Your task to perform on an android device: open a new tab in the chrome app Image 0: 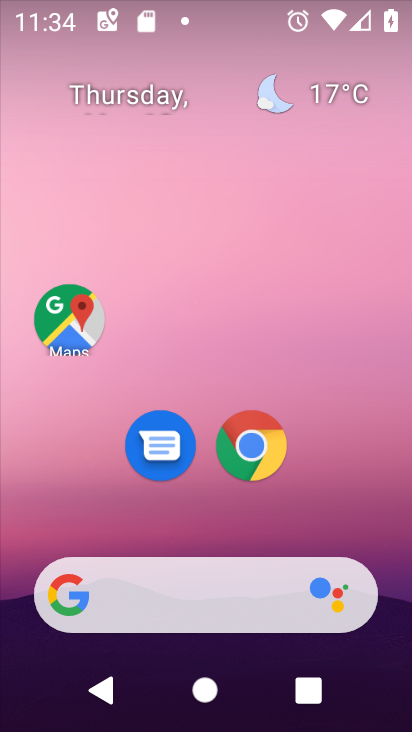
Step 0: click (262, 365)
Your task to perform on an android device: open a new tab in the chrome app Image 1: 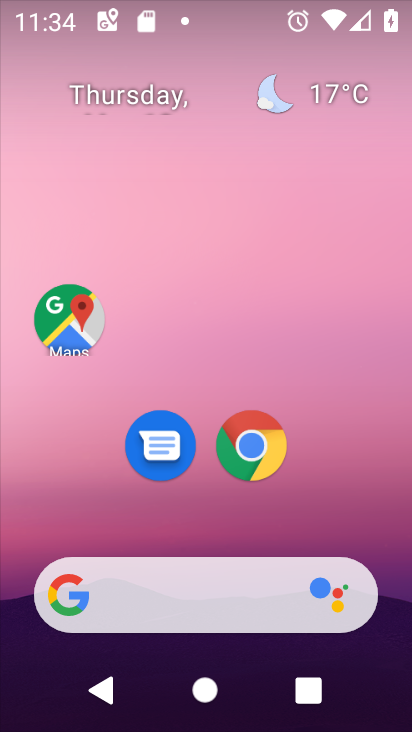
Step 1: drag from (184, 532) to (209, 64)
Your task to perform on an android device: open a new tab in the chrome app Image 2: 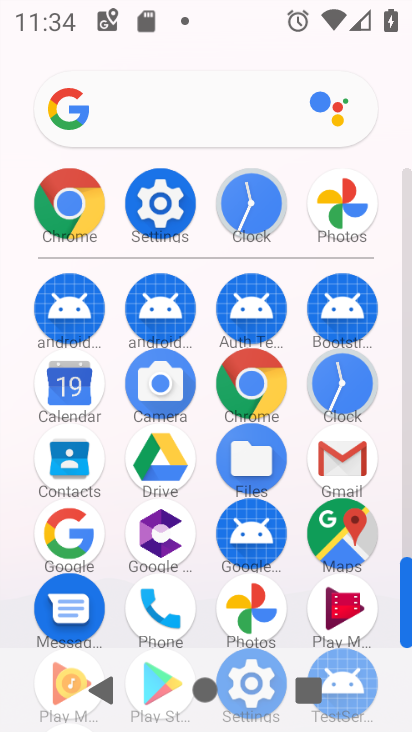
Step 2: click (263, 393)
Your task to perform on an android device: open a new tab in the chrome app Image 3: 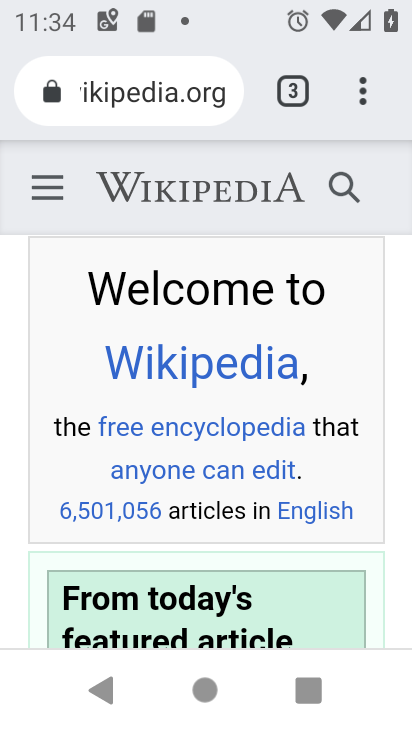
Step 3: click (308, 95)
Your task to perform on an android device: open a new tab in the chrome app Image 4: 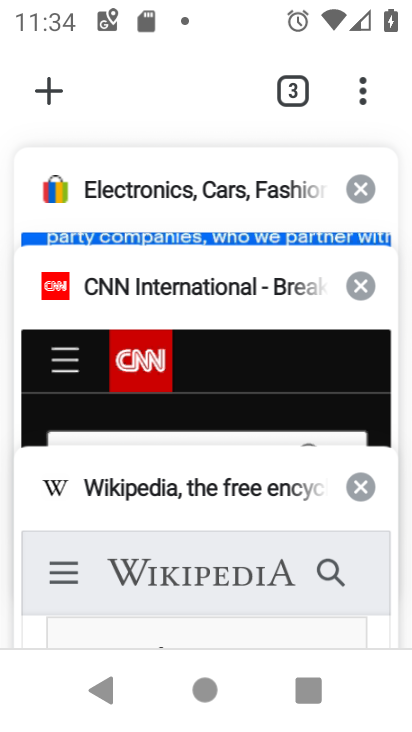
Step 4: click (61, 94)
Your task to perform on an android device: open a new tab in the chrome app Image 5: 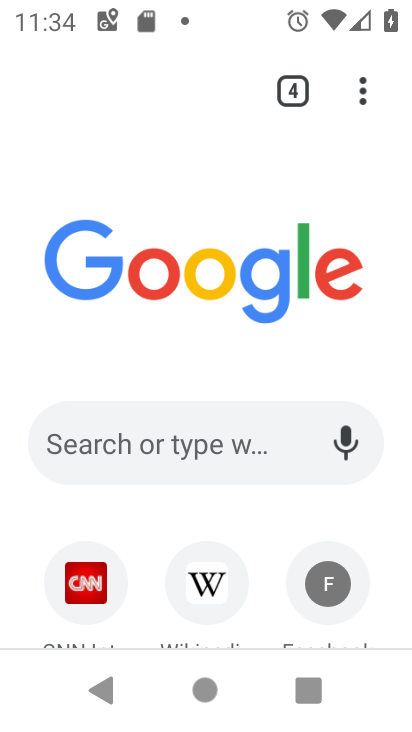
Step 5: task complete